Your task to perform on an android device: Open Yahoo.com Image 0: 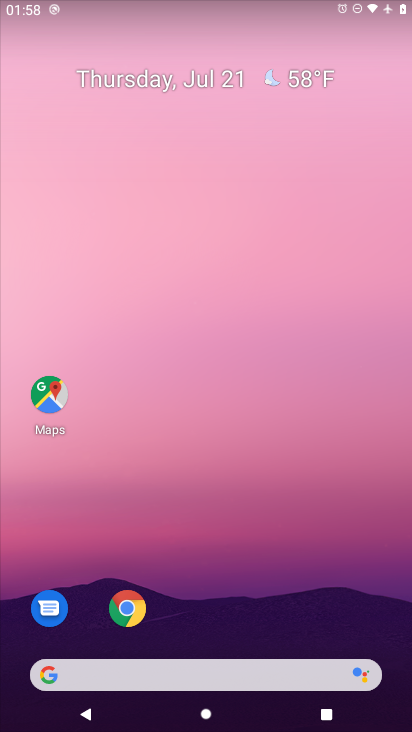
Step 0: click (47, 672)
Your task to perform on an android device: Open Yahoo.com Image 1: 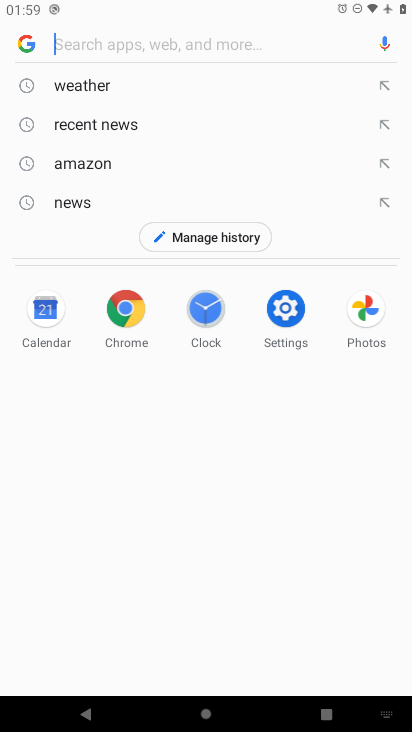
Step 1: type " Yahoo.com"
Your task to perform on an android device: Open Yahoo.com Image 2: 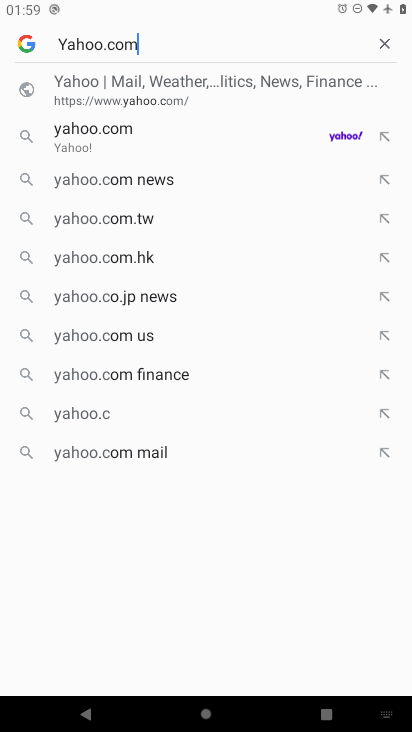
Step 2: press enter
Your task to perform on an android device: Open Yahoo.com Image 3: 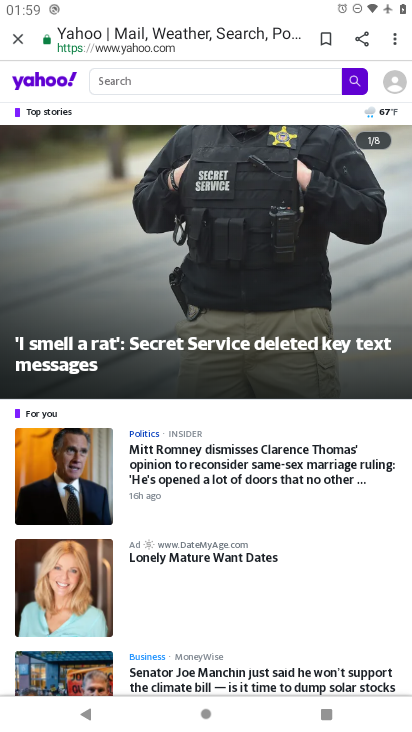
Step 3: task complete